Your task to perform on an android device: toggle airplane mode Image 0: 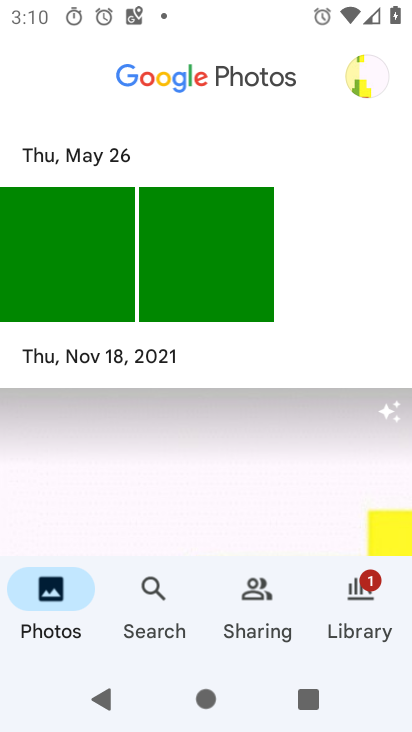
Step 0: press home button
Your task to perform on an android device: toggle airplane mode Image 1: 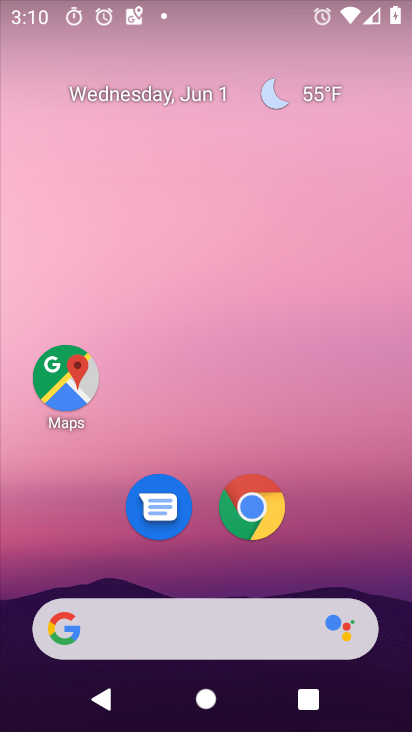
Step 1: drag from (338, 563) to (343, 506)
Your task to perform on an android device: toggle airplane mode Image 2: 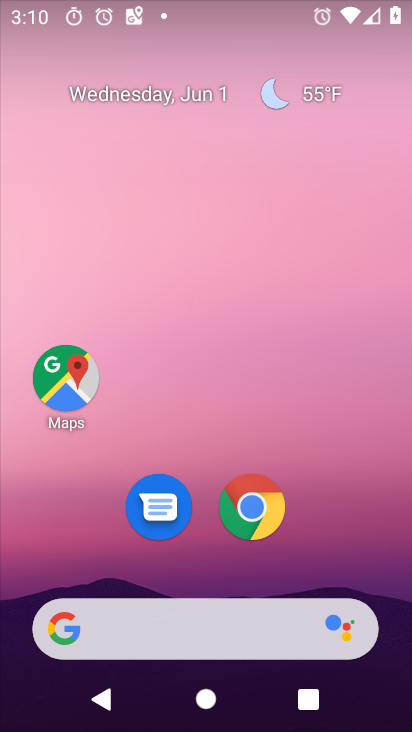
Step 2: drag from (347, 558) to (334, 42)
Your task to perform on an android device: toggle airplane mode Image 3: 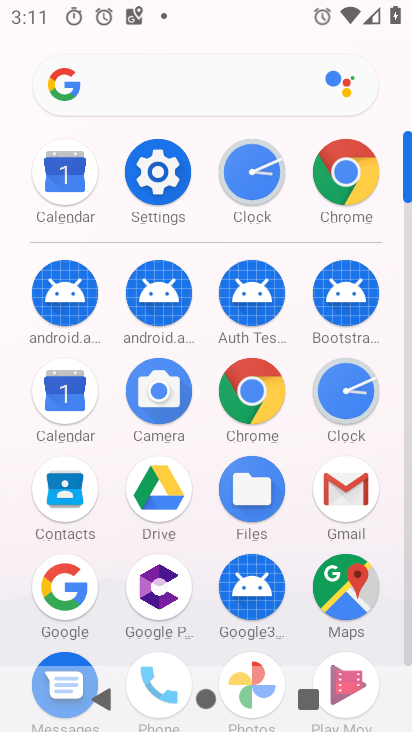
Step 3: click (149, 180)
Your task to perform on an android device: toggle airplane mode Image 4: 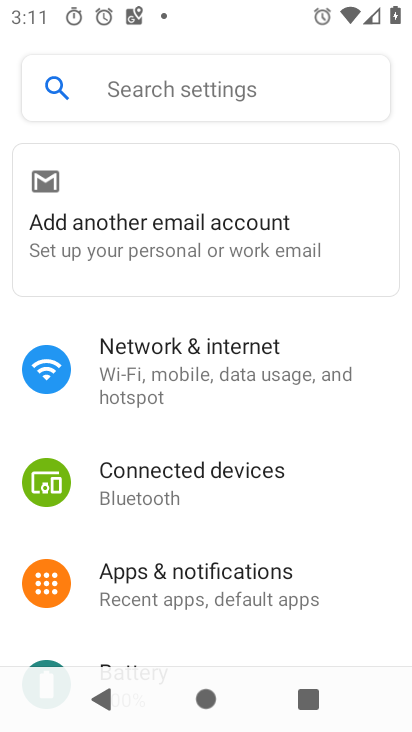
Step 4: click (165, 377)
Your task to perform on an android device: toggle airplane mode Image 5: 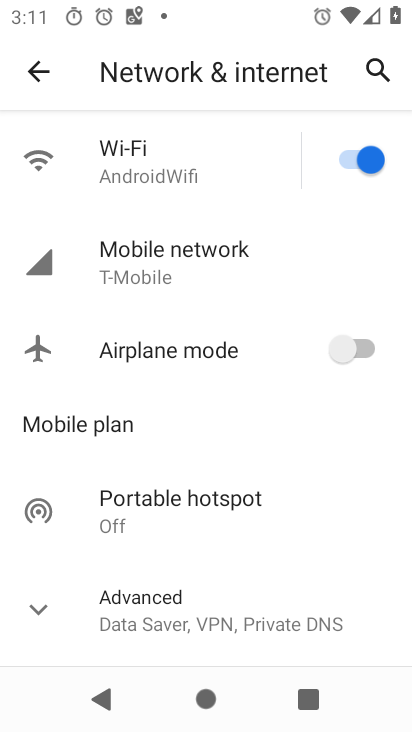
Step 5: click (350, 352)
Your task to perform on an android device: toggle airplane mode Image 6: 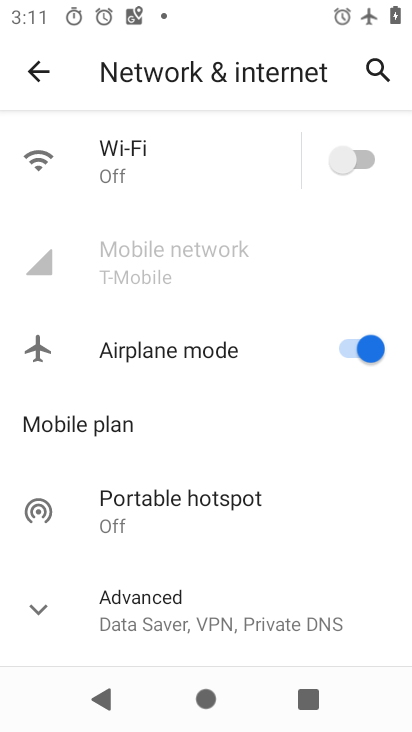
Step 6: task complete